Your task to perform on an android device: What's the weather today? Image 0: 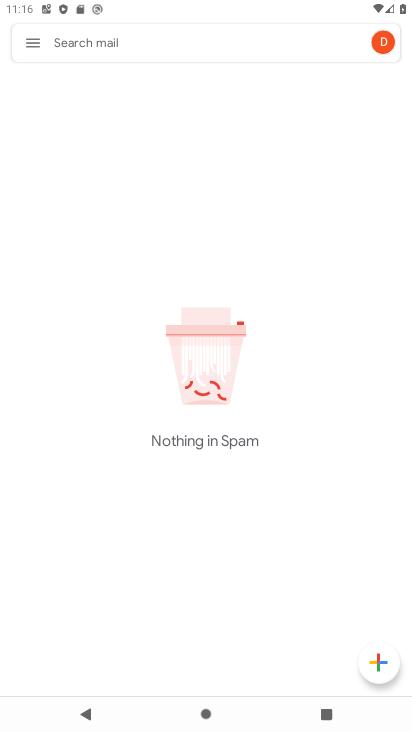
Step 0: press home button
Your task to perform on an android device: What's the weather today? Image 1: 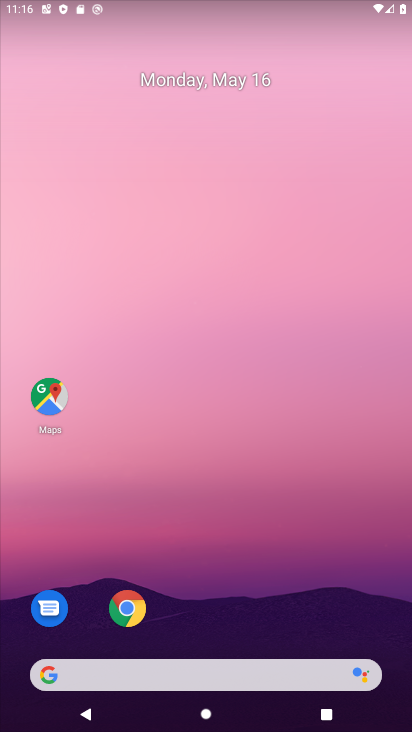
Step 1: click (50, 679)
Your task to perform on an android device: What's the weather today? Image 2: 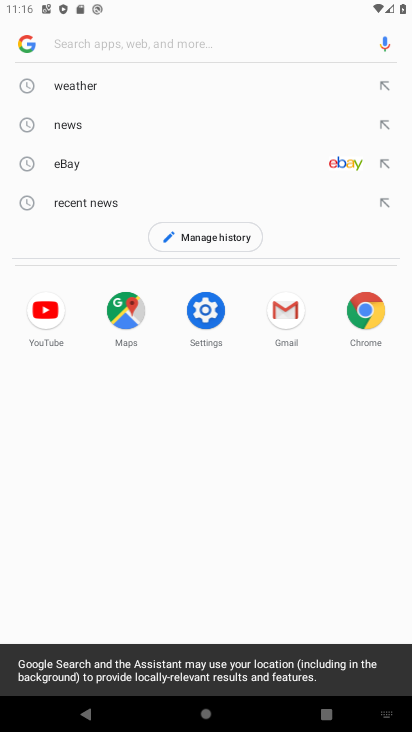
Step 2: click (78, 83)
Your task to perform on an android device: What's the weather today? Image 3: 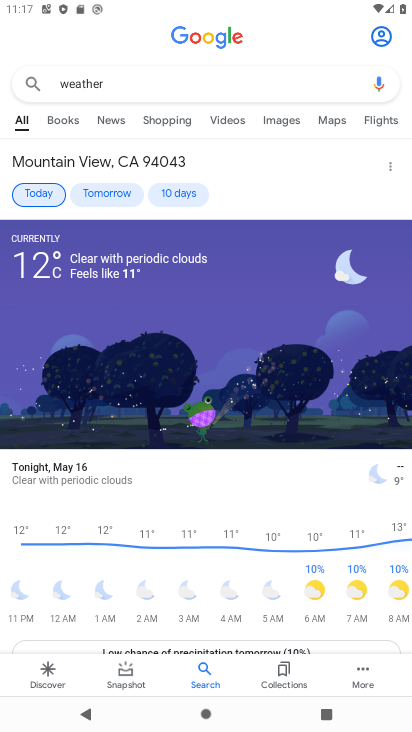
Step 3: task complete